Your task to perform on an android device: open sync settings in chrome Image 0: 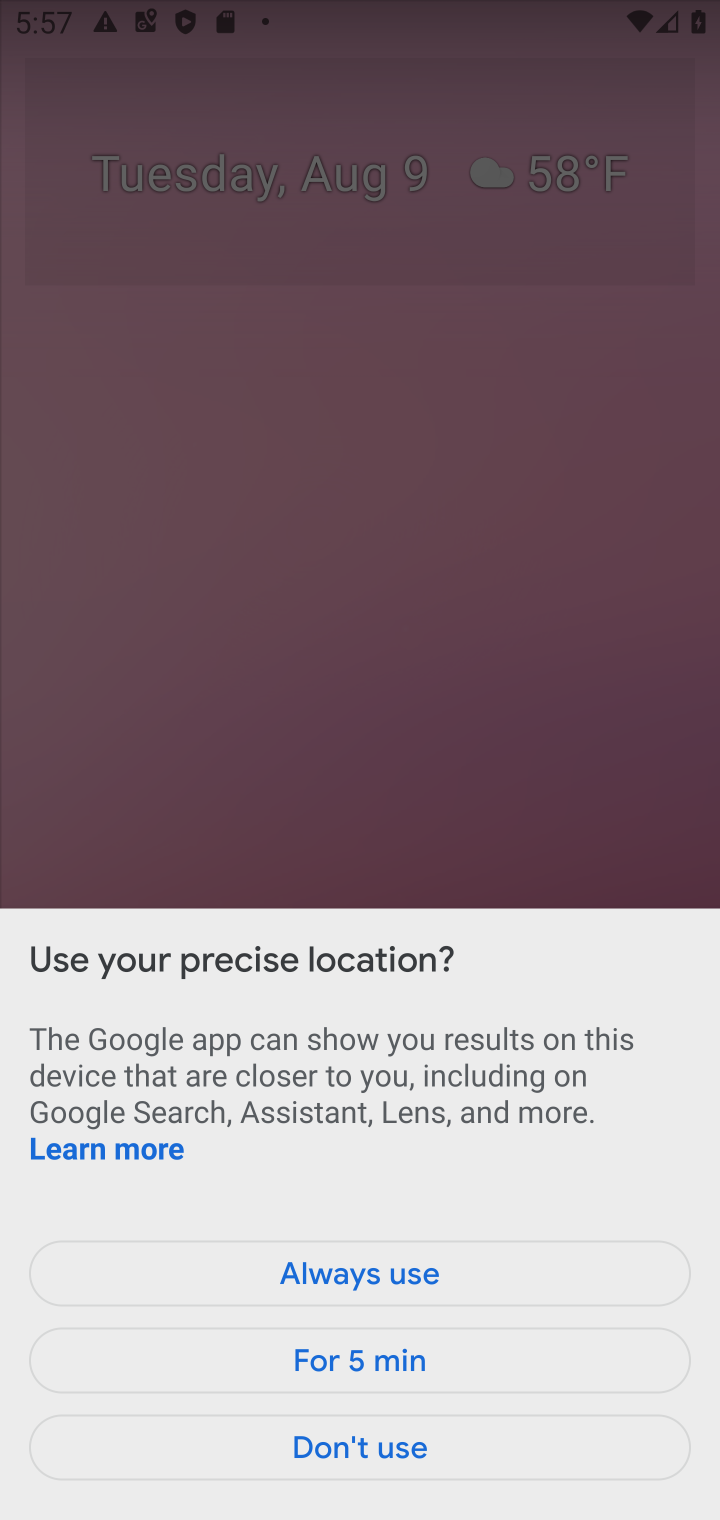
Step 0: click (381, 1436)
Your task to perform on an android device: open sync settings in chrome Image 1: 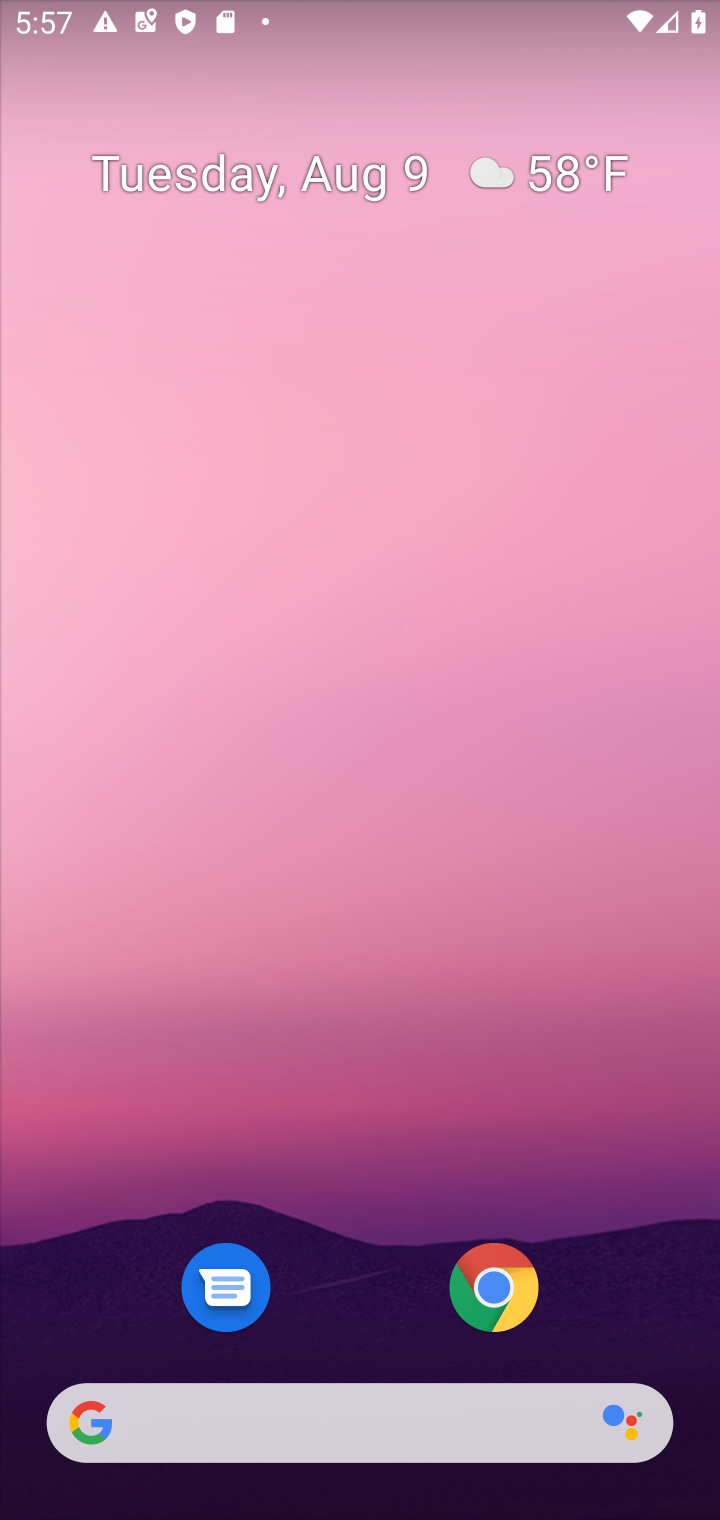
Step 1: click (518, 1278)
Your task to perform on an android device: open sync settings in chrome Image 2: 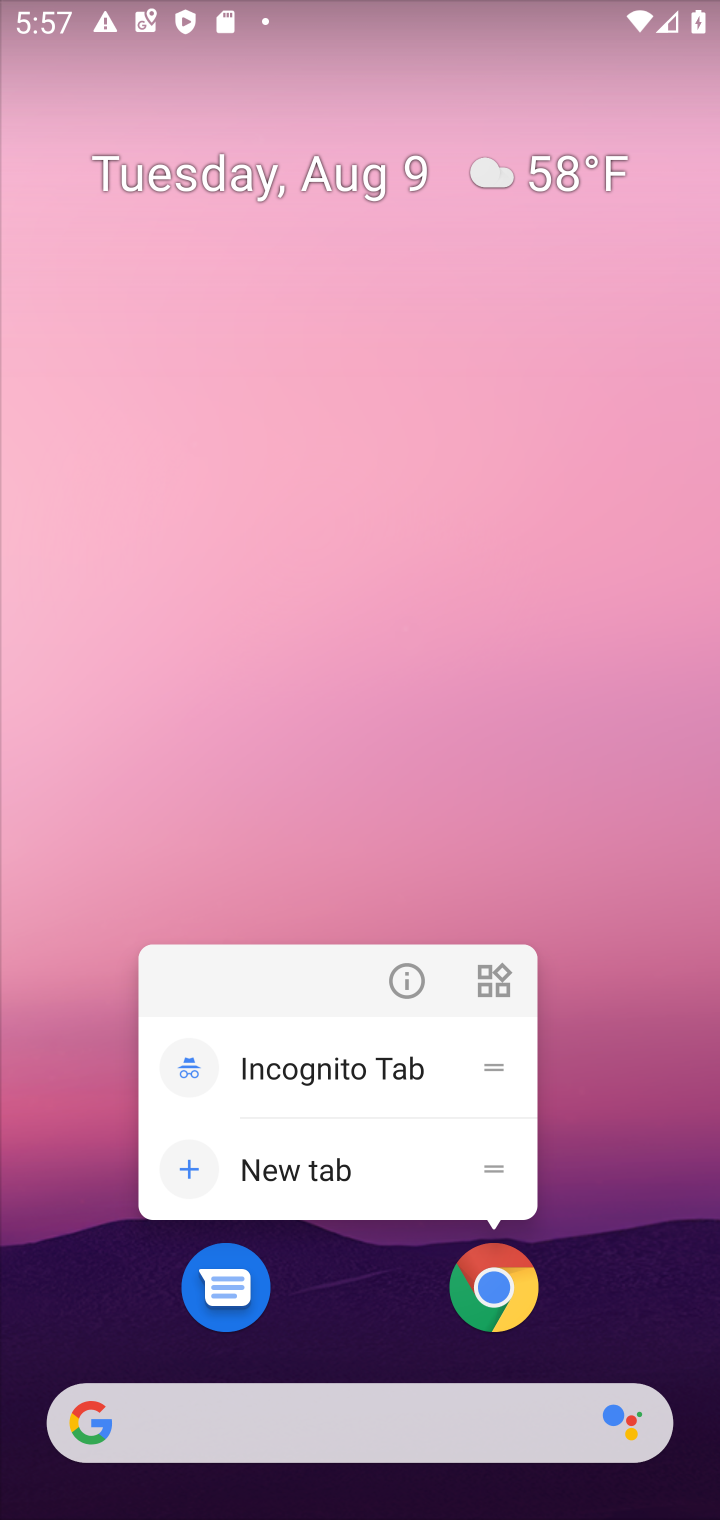
Step 2: click (518, 1278)
Your task to perform on an android device: open sync settings in chrome Image 3: 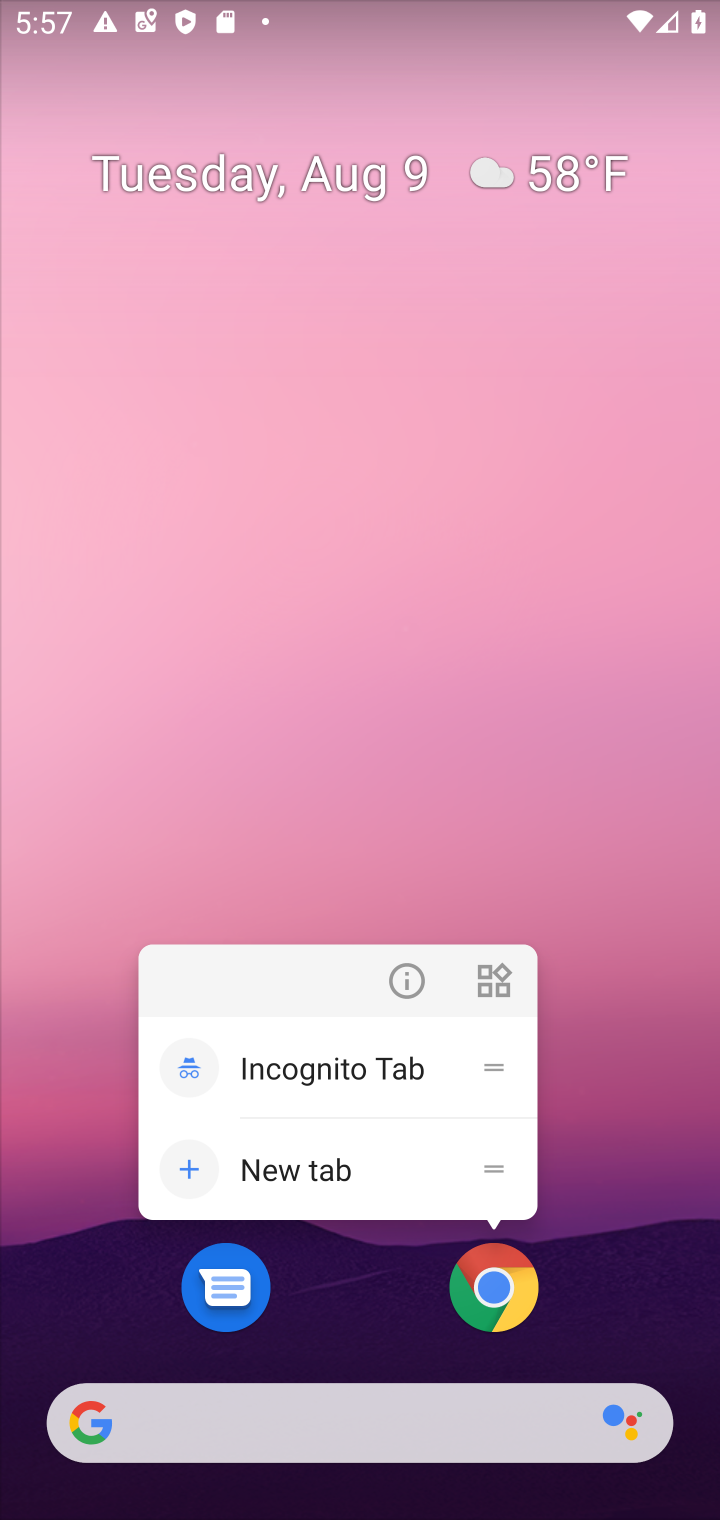
Step 3: click (498, 1290)
Your task to perform on an android device: open sync settings in chrome Image 4: 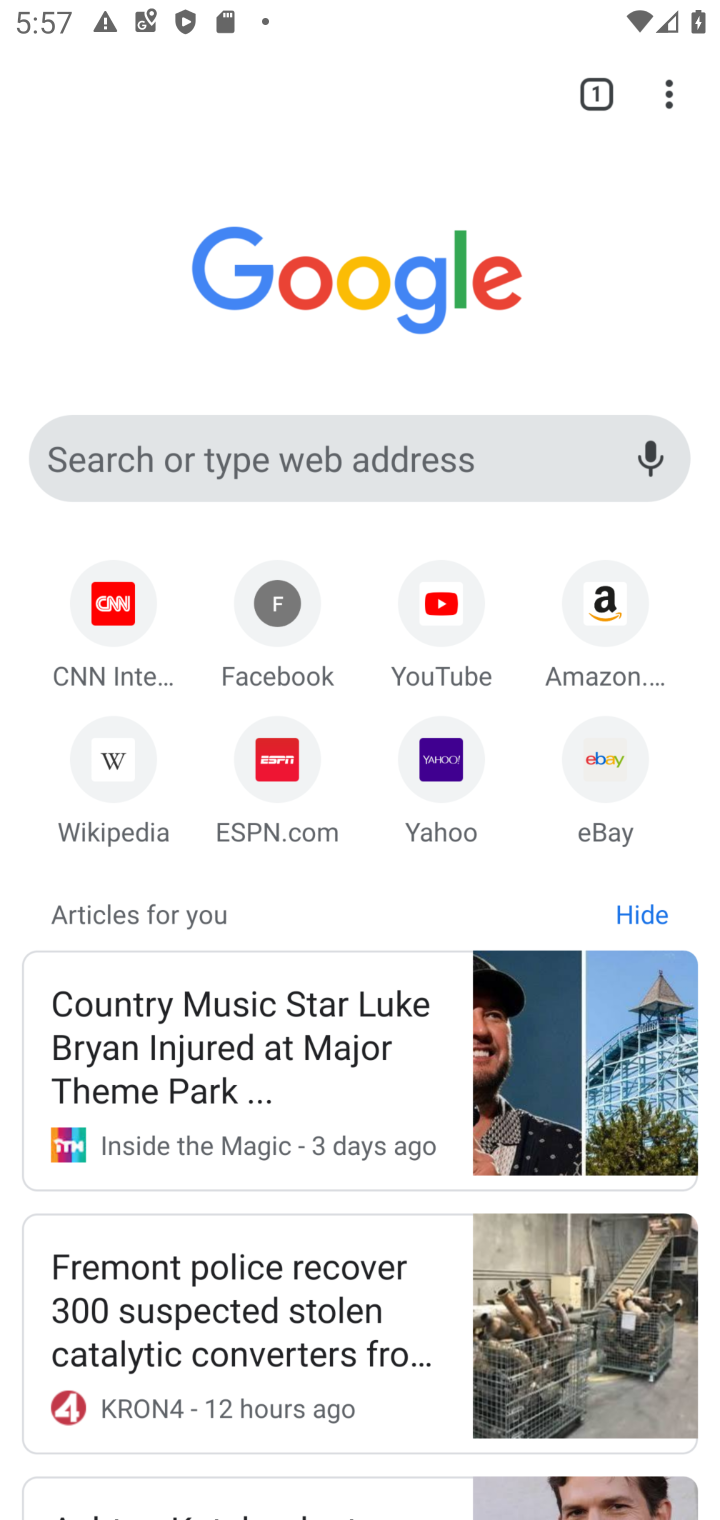
Step 4: click (547, 1319)
Your task to perform on an android device: open sync settings in chrome Image 5: 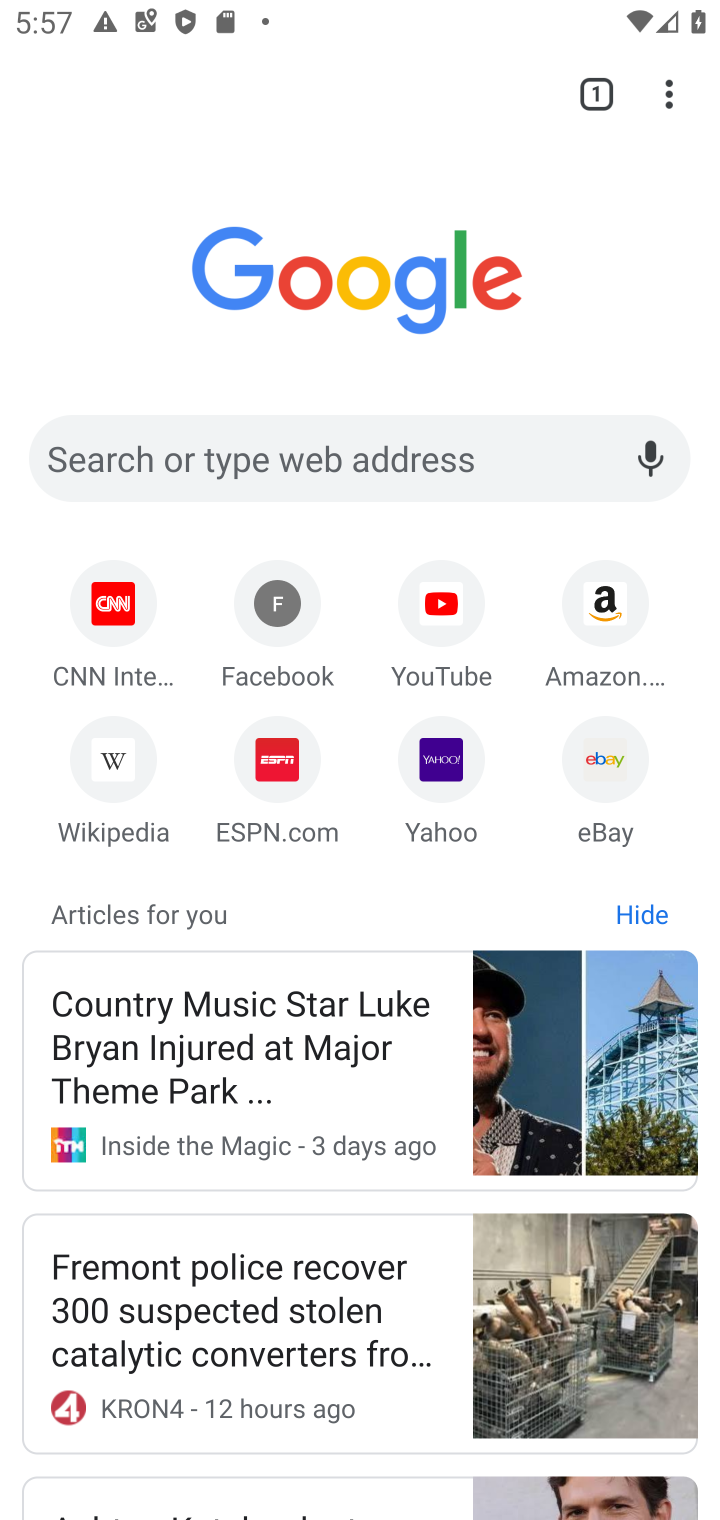
Step 5: click (671, 95)
Your task to perform on an android device: open sync settings in chrome Image 6: 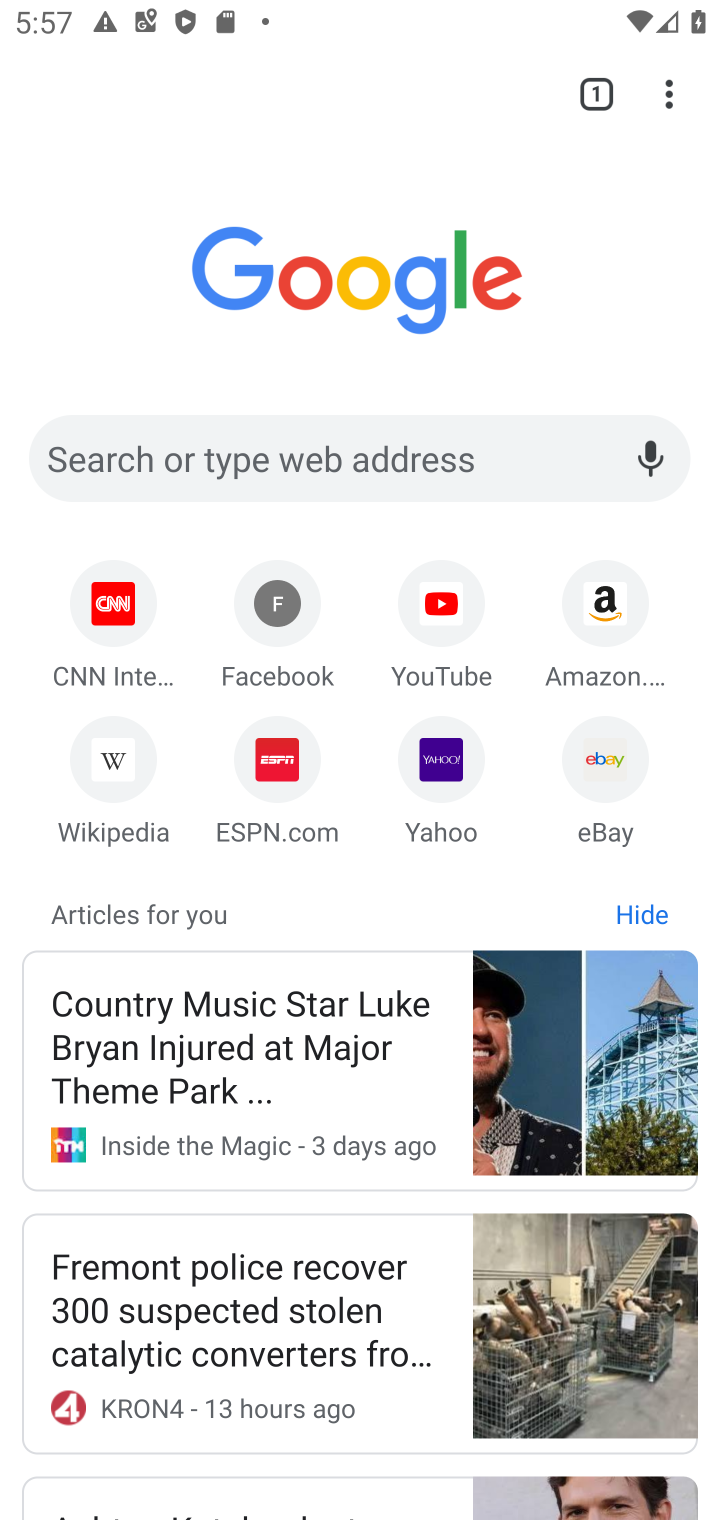
Step 6: click (689, 103)
Your task to perform on an android device: open sync settings in chrome Image 7: 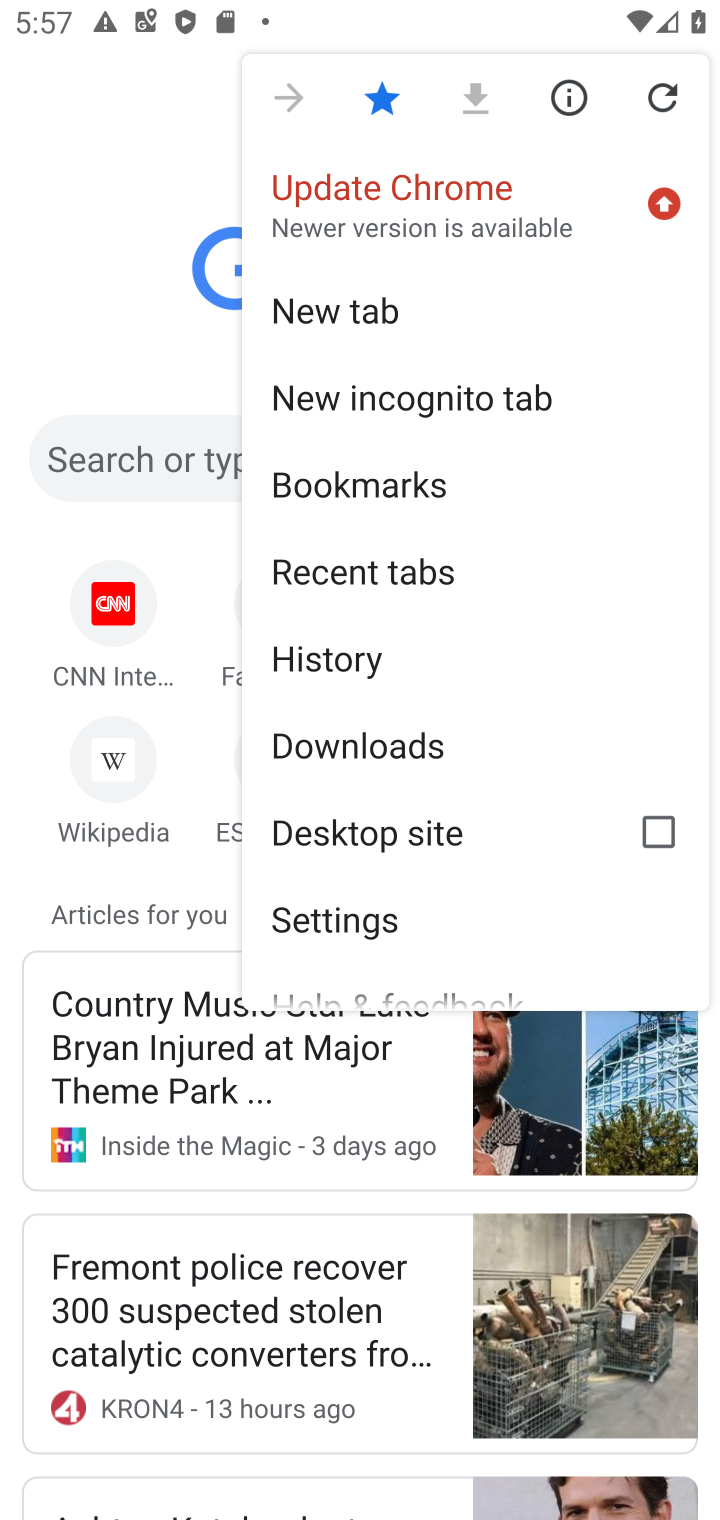
Step 7: drag from (449, 805) to (458, 324)
Your task to perform on an android device: open sync settings in chrome Image 8: 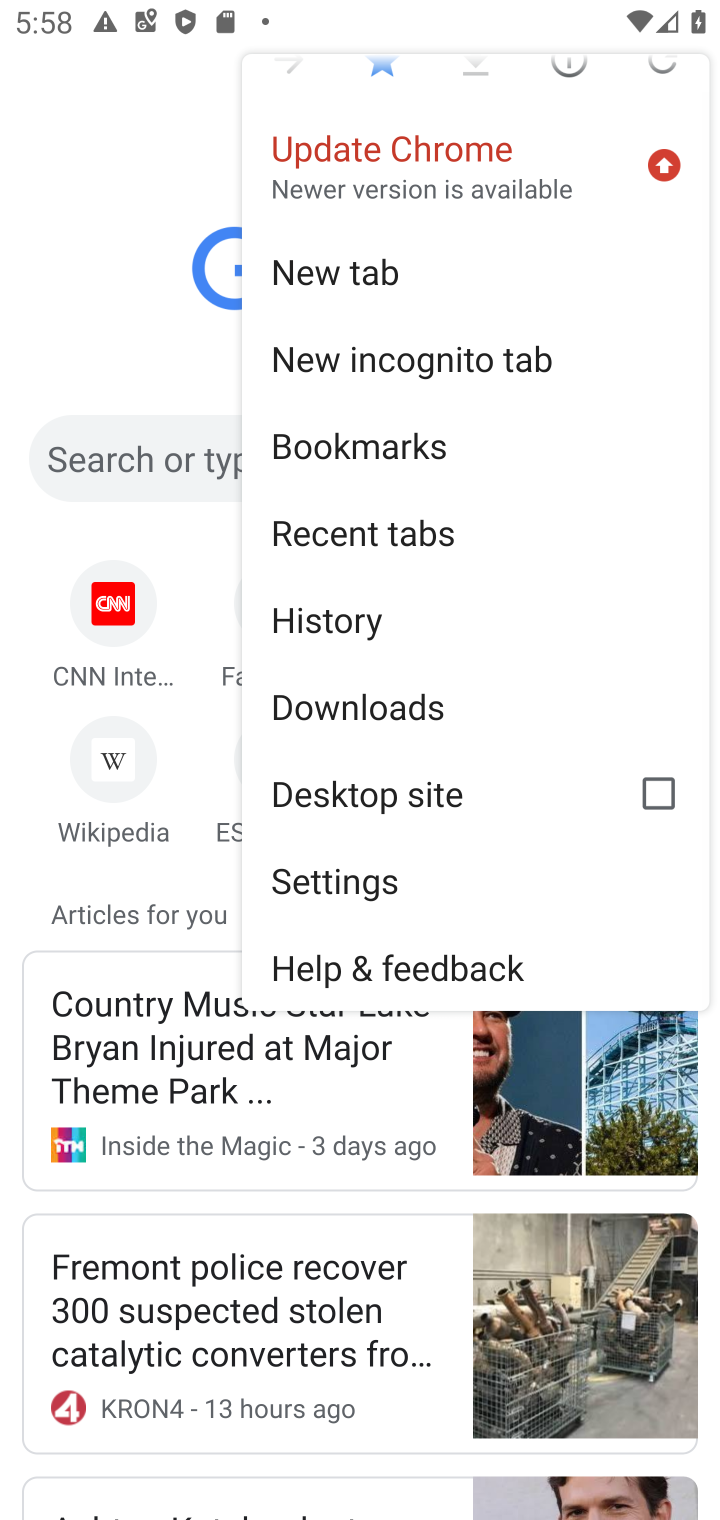
Step 8: click (353, 873)
Your task to perform on an android device: open sync settings in chrome Image 9: 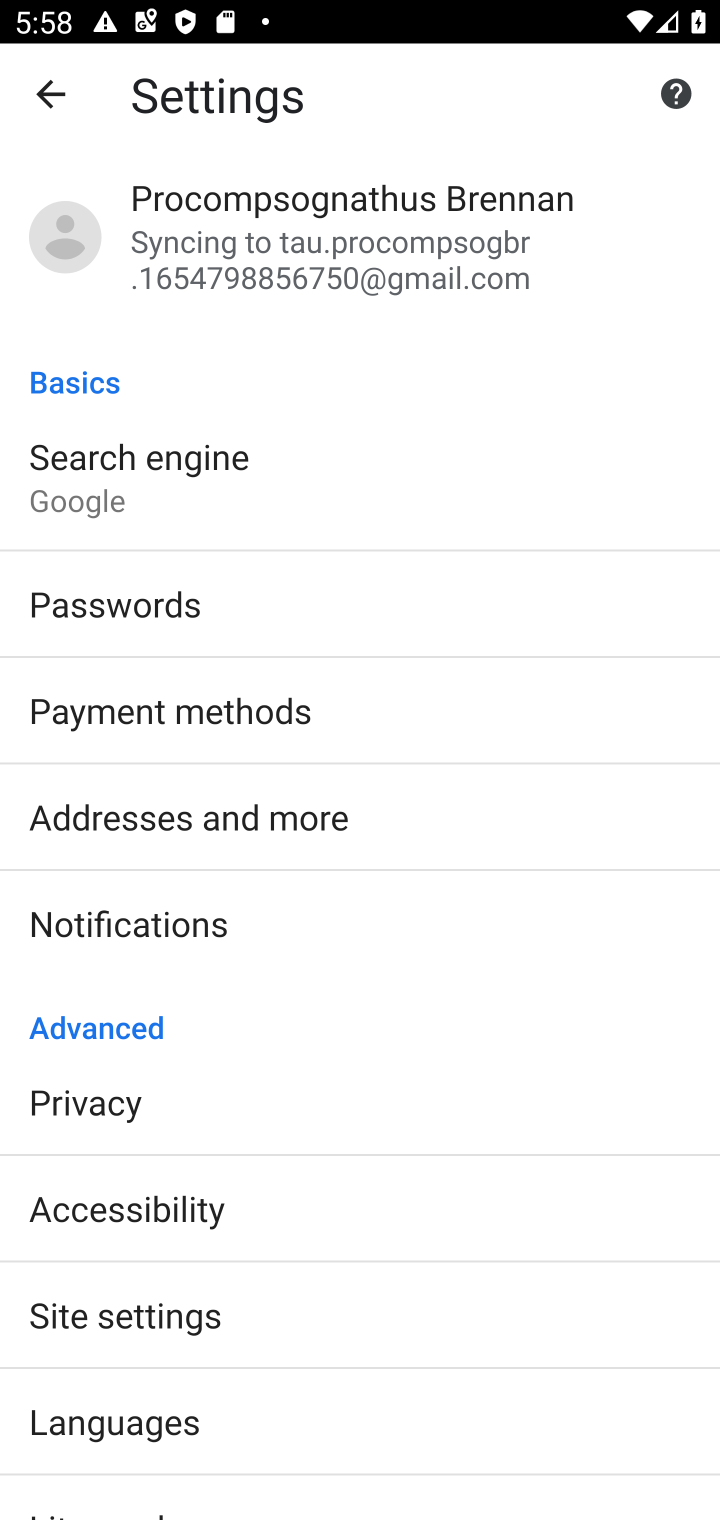
Step 9: task complete